Your task to perform on an android device: clear history in the chrome app Image 0: 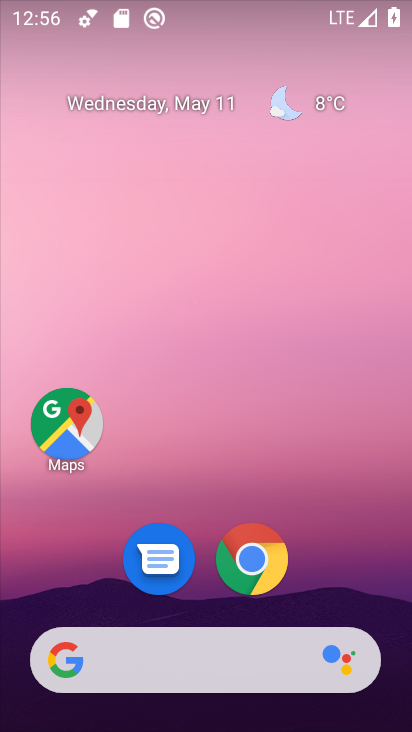
Step 0: click (248, 566)
Your task to perform on an android device: clear history in the chrome app Image 1: 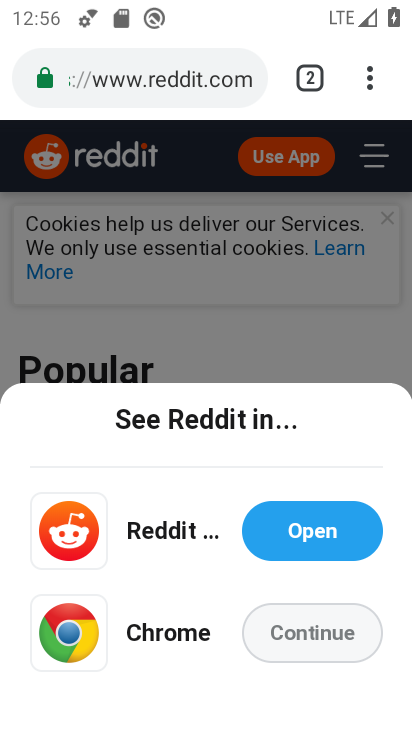
Step 1: click (368, 79)
Your task to perform on an android device: clear history in the chrome app Image 2: 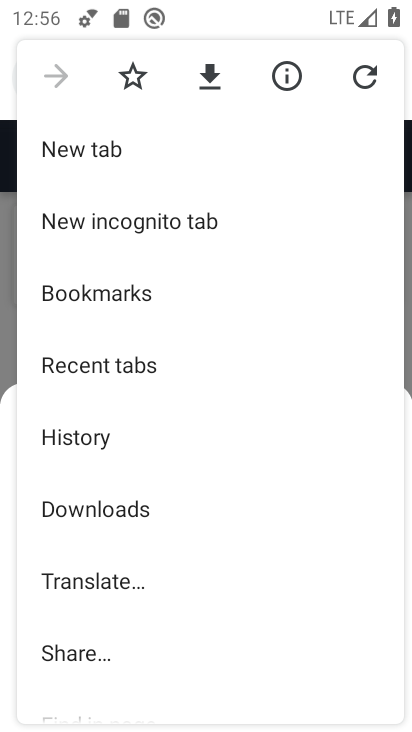
Step 2: click (78, 434)
Your task to perform on an android device: clear history in the chrome app Image 3: 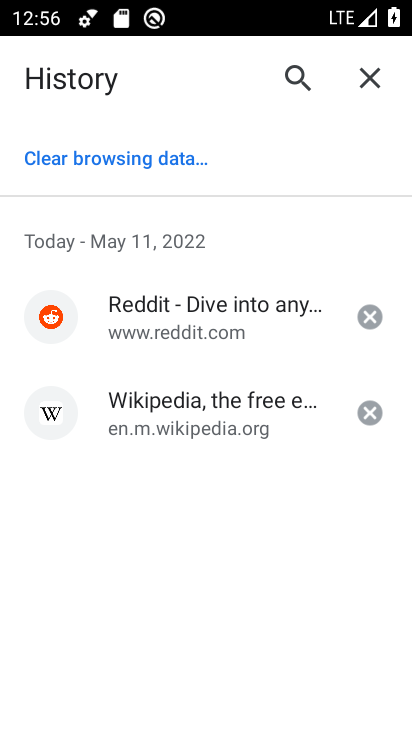
Step 3: click (113, 161)
Your task to perform on an android device: clear history in the chrome app Image 4: 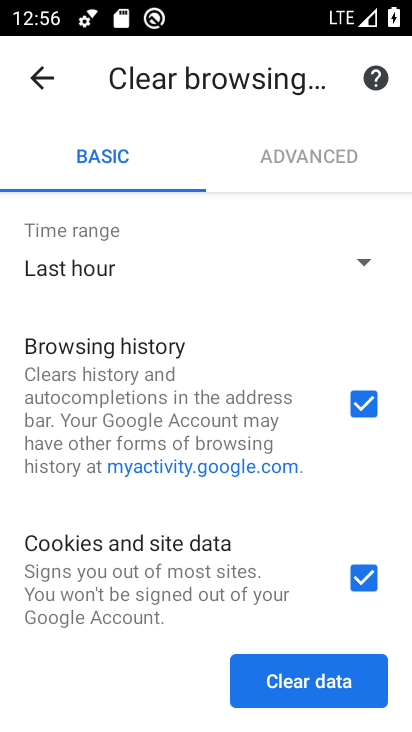
Step 4: drag from (197, 544) to (211, 402)
Your task to perform on an android device: clear history in the chrome app Image 5: 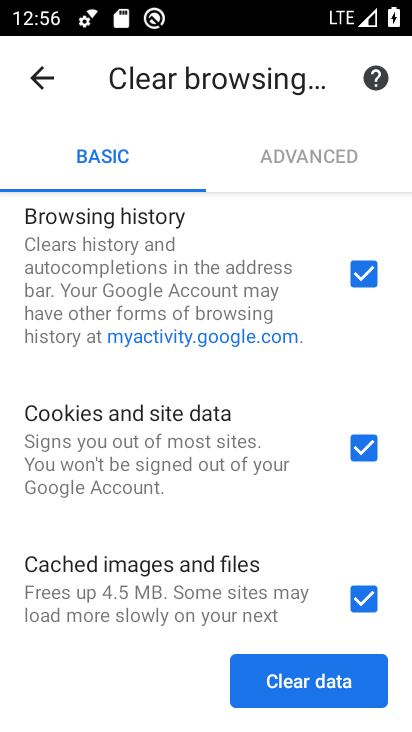
Step 5: click (363, 592)
Your task to perform on an android device: clear history in the chrome app Image 6: 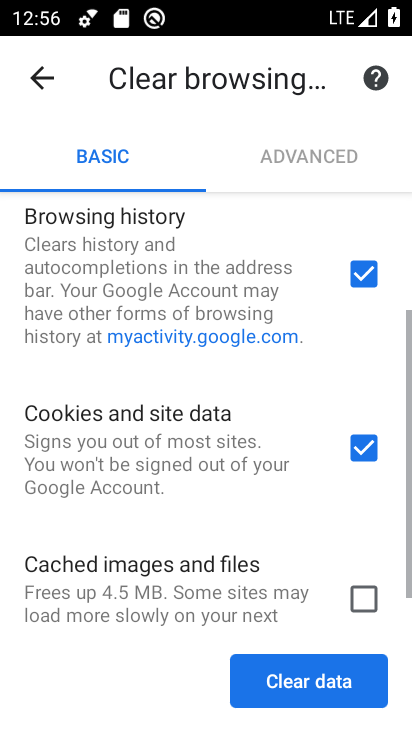
Step 6: click (364, 449)
Your task to perform on an android device: clear history in the chrome app Image 7: 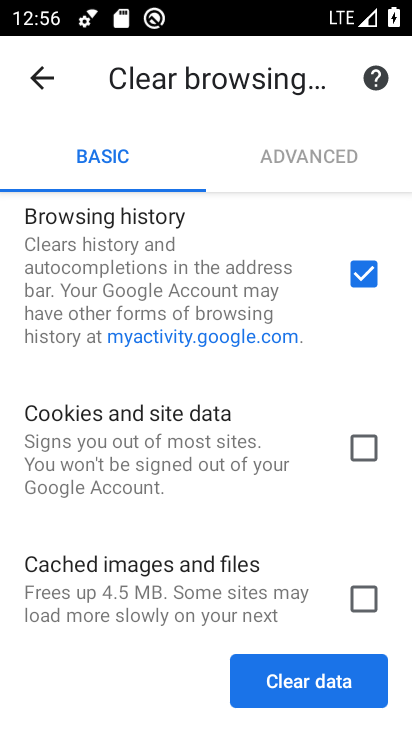
Step 7: click (269, 673)
Your task to perform on an android device: clear history in the chrome app Image 8: 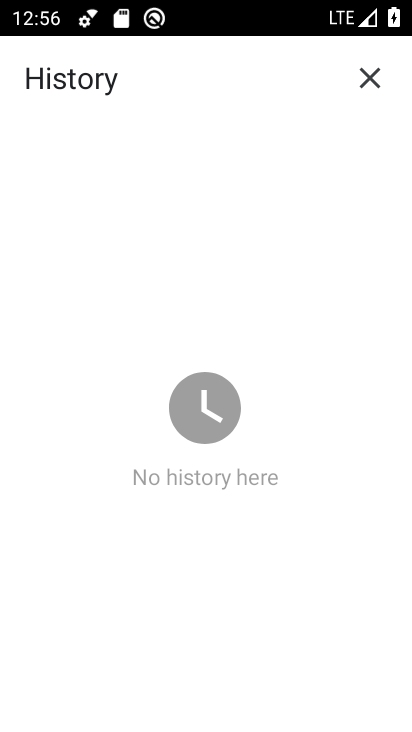
Step 8: task complete